Your task to perform on an android device: check the backup settings in the google photos Image 0: 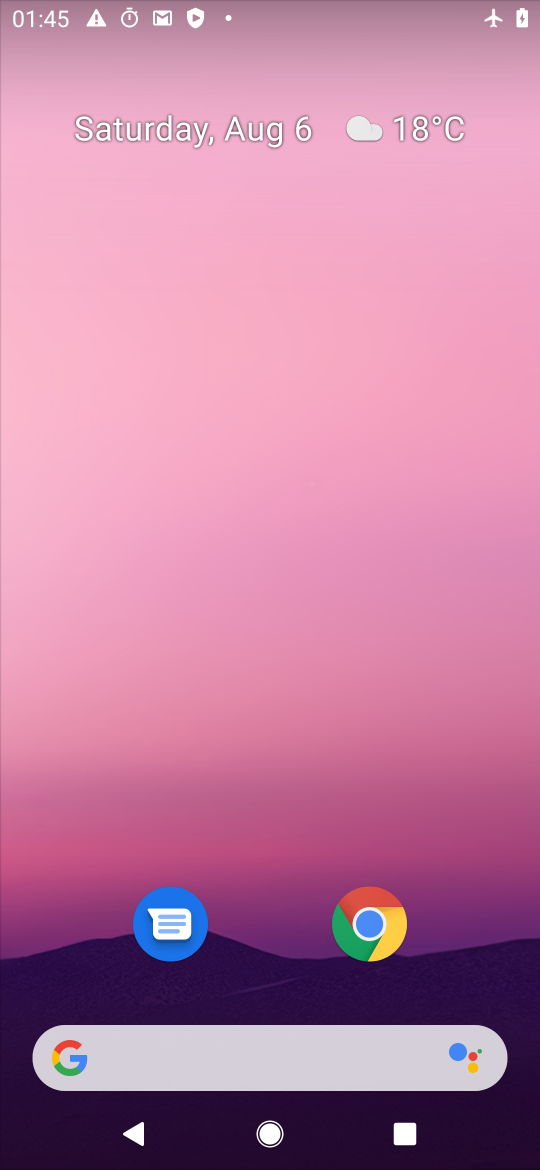
Step 0: drag from (359, 1064) to (345, 67)
Your task to perform on an android device: check the backup settings in the google photos Image 1: 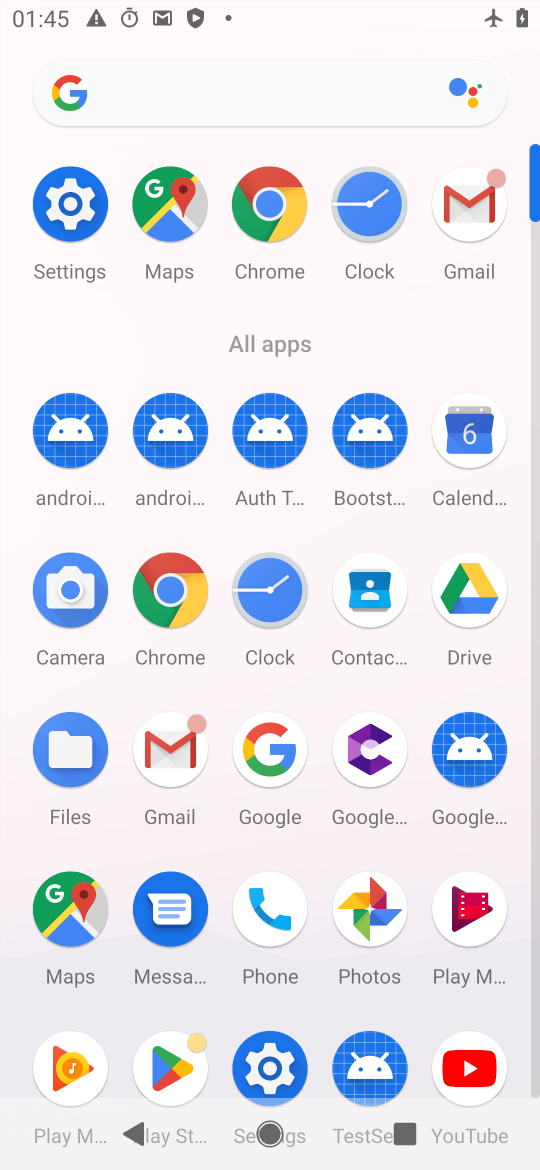
Step 1: click (363, 894)
Your task to perform on an android device: check the backup settings in the google photos Image 2: 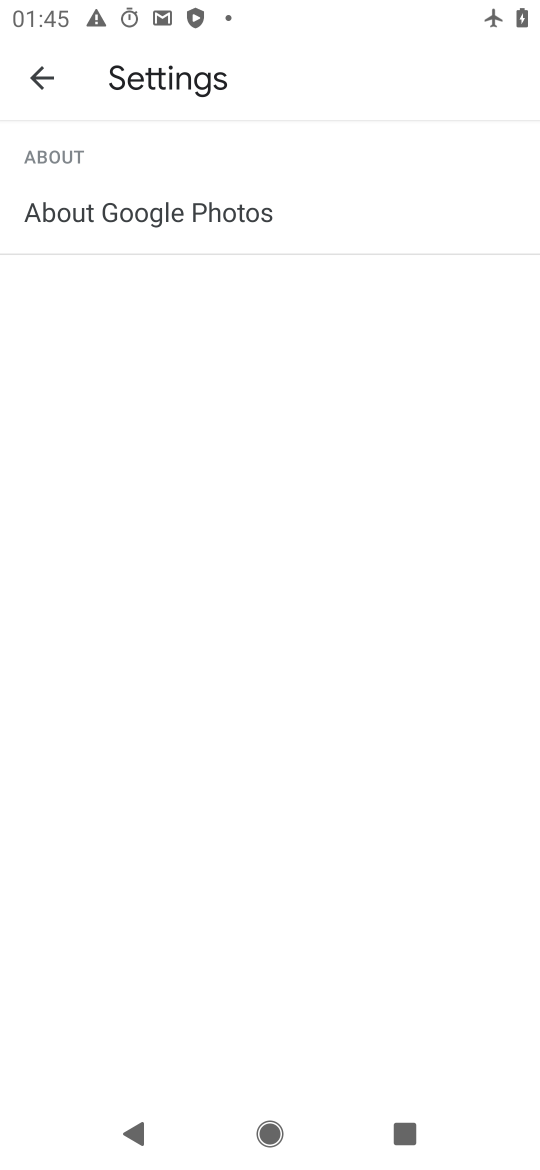
Step 2: press back button
Your task to perform on an android device: check the backup settings in the google photos Image 3: 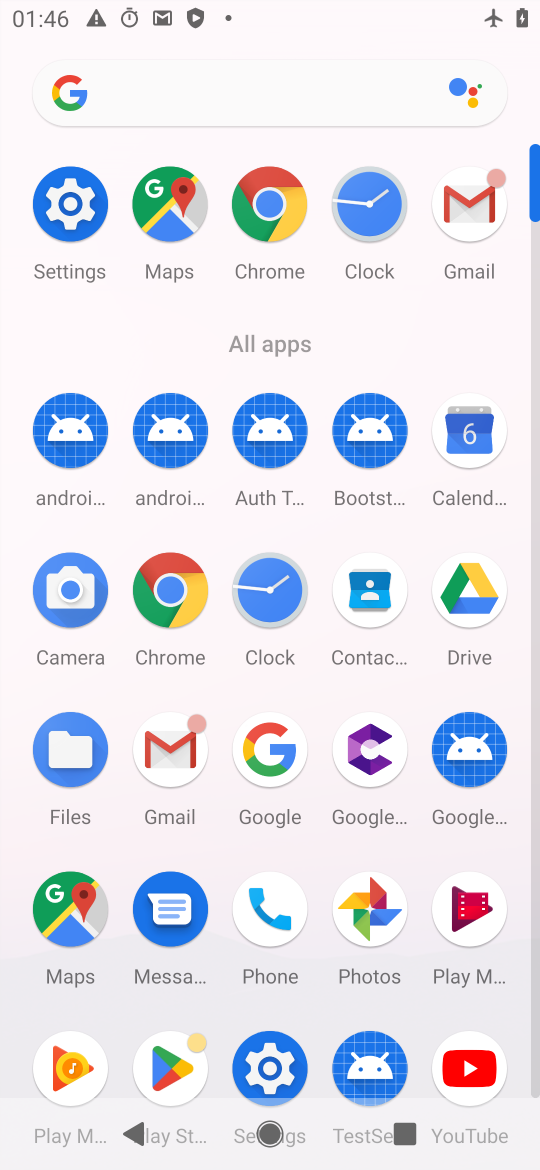
Step 3: click (351, 913)
Your task to perform on an android device: check the backup settings in the google photos Image 4: 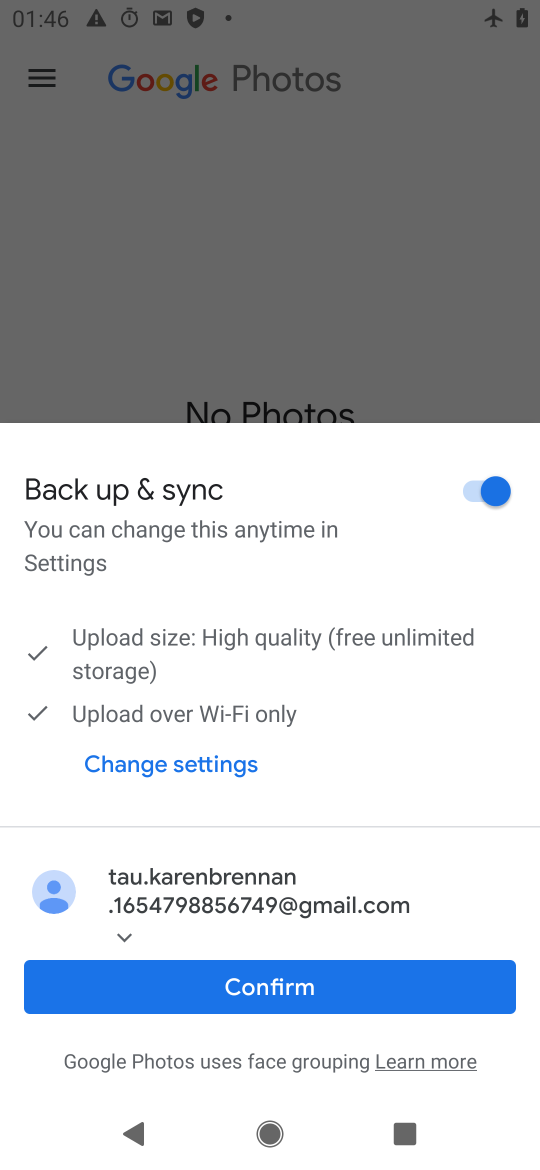
Step 4: click (288, 993)
Your task to perform on an android device: check the backup settings in the google photos Image 5: 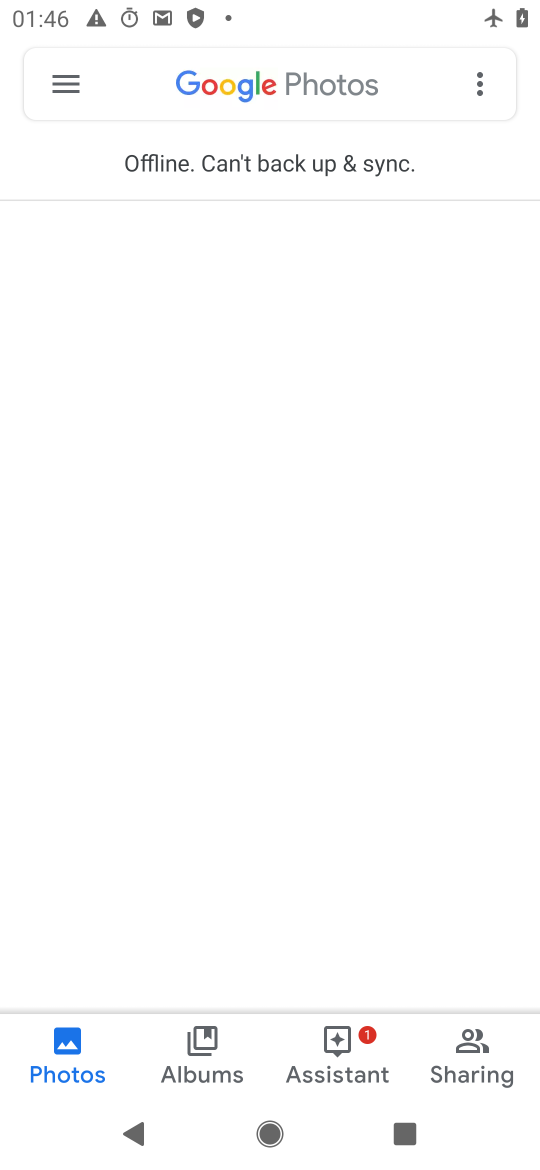
Step 5: click (73, 83)
Your task to perform on an android device: check the backup settings in the google photos Image 6: 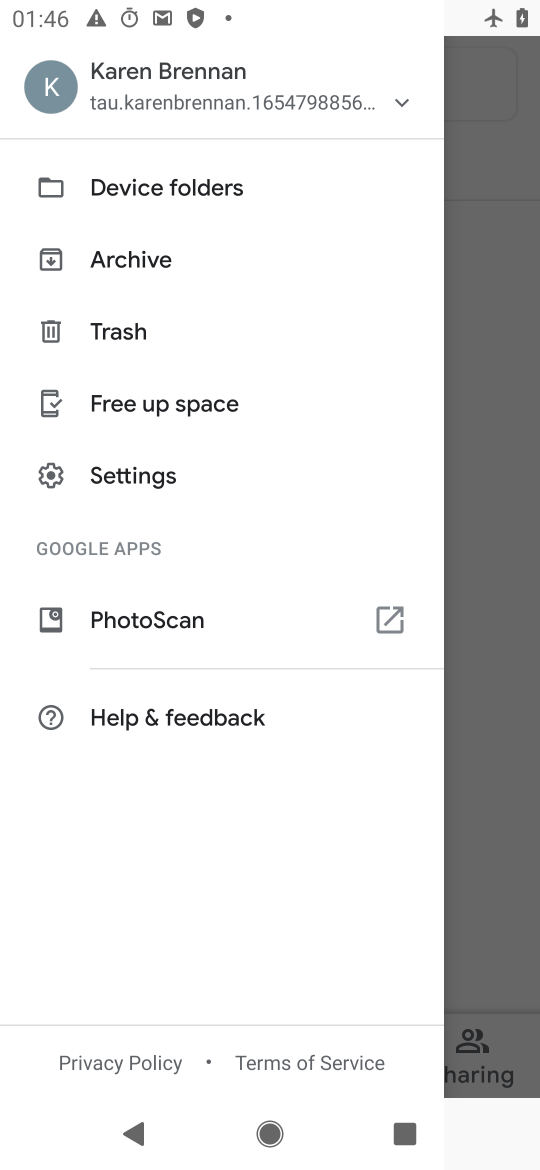
Step 6: click (134, 467)
Your task to perform on an android device: check the backup settings in the google photos Image 7: 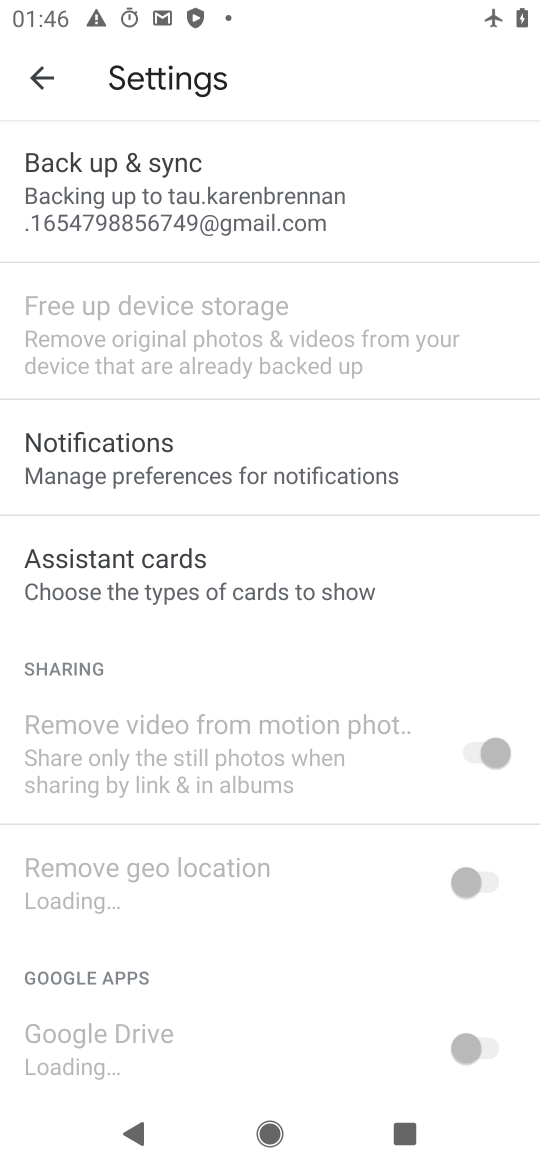
Step 7: task complete